Your task to perform on an android device: Do I have any events this weekend? Image 0: 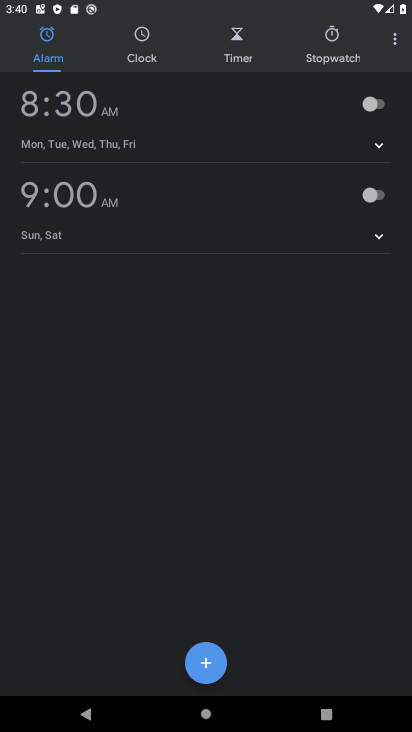
Step 0: press home button
Your task to perform on an android device: Do I have any events this weekend? Image 1: 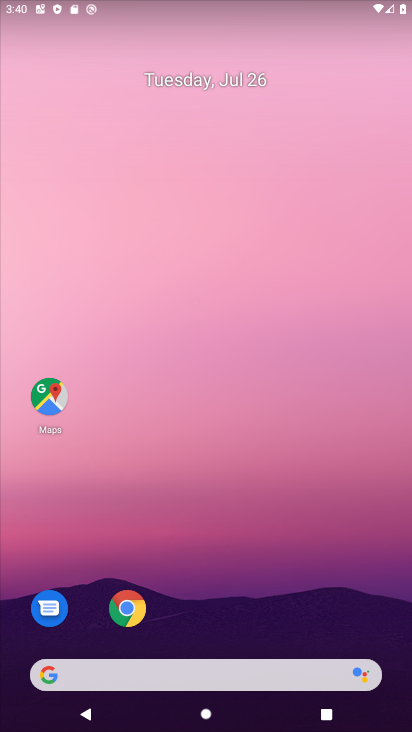
Step 1: drag from (293, 547) to (287, 284)
Your task to perform on an android device: Do I have any events this weekend? Image 2: 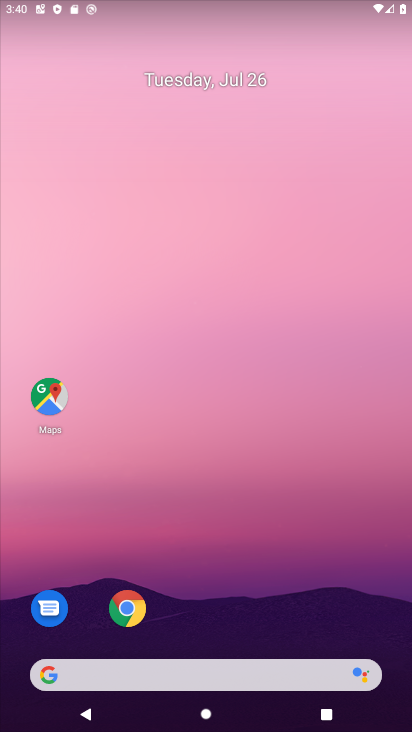
Step 2: drag from (290, 570) to (335, 140)
Your task to perform on an android device: Do I have any events this weekend? Image 3: 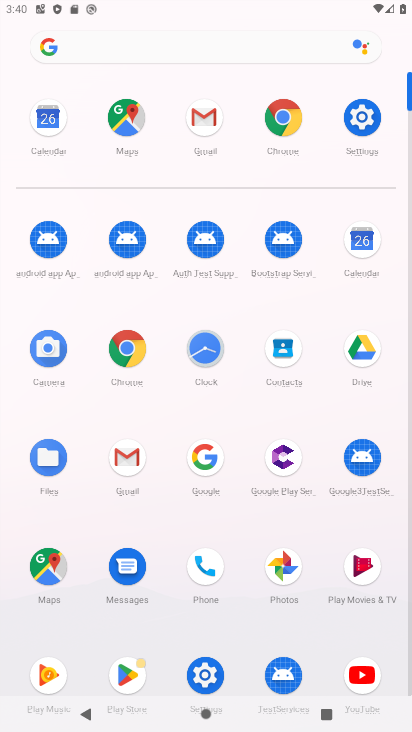
Step 3: click (359, 246)
Your task to perform on an android device: Do I have any events this weekend? Image 4: 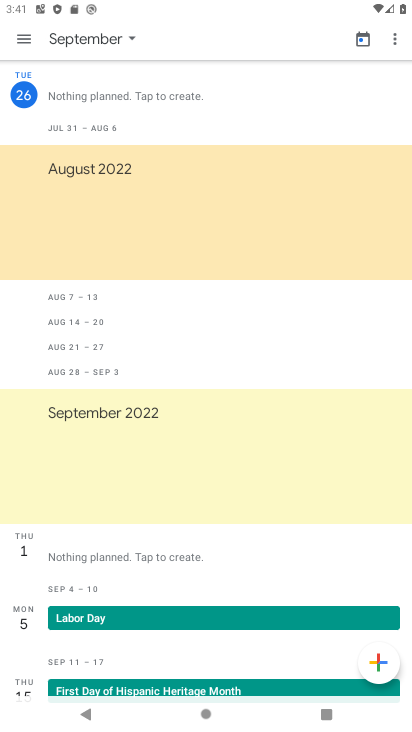
Step 4: task complete